Your task to perform on an android device: Go to Amazon Image 0: 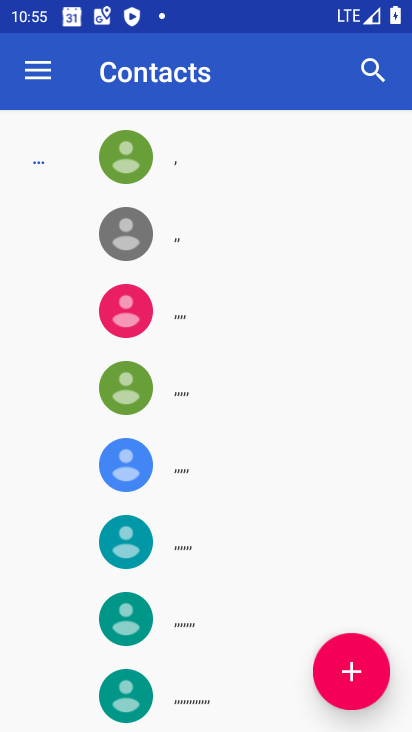
Step 0: press home button
Your task to perform on an android device: Go to Amazon Image 1: 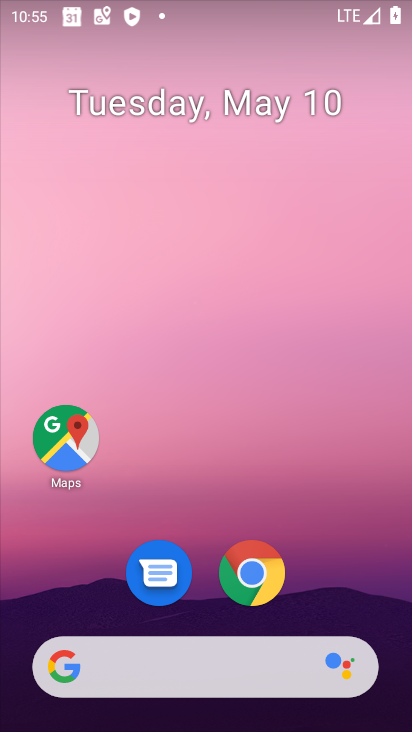
Step 1: click (255, 581)
Your task to perform on an android device: Go to Amazon Image 2: 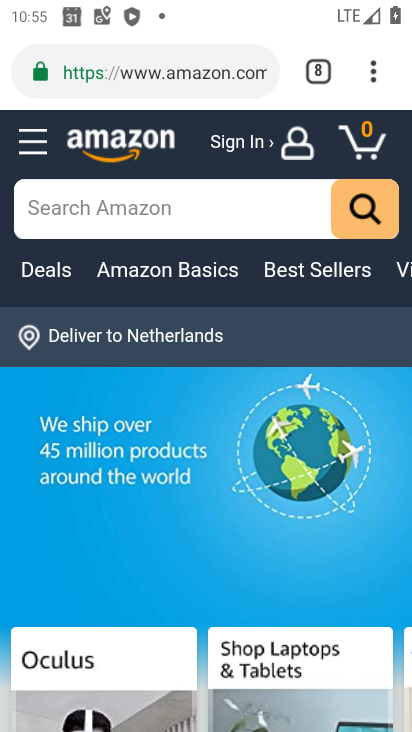
Step 2: task complete